Your task to perform on an android device: Go to Google Image 0: 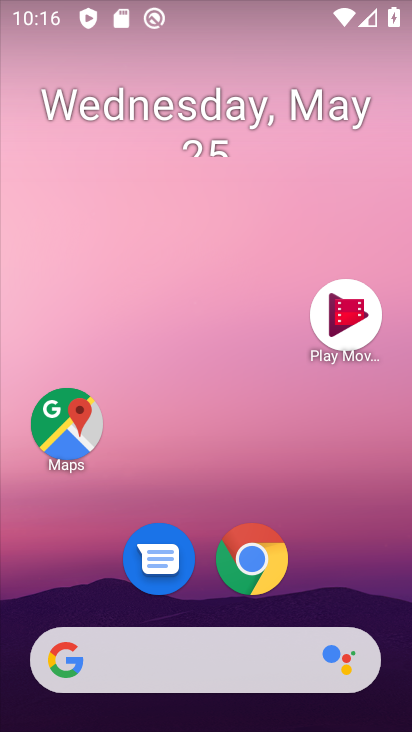
Step 0: drag from (332, 579) to (266, 2)
Your task to perform on an android device: Go to Google Image 1: 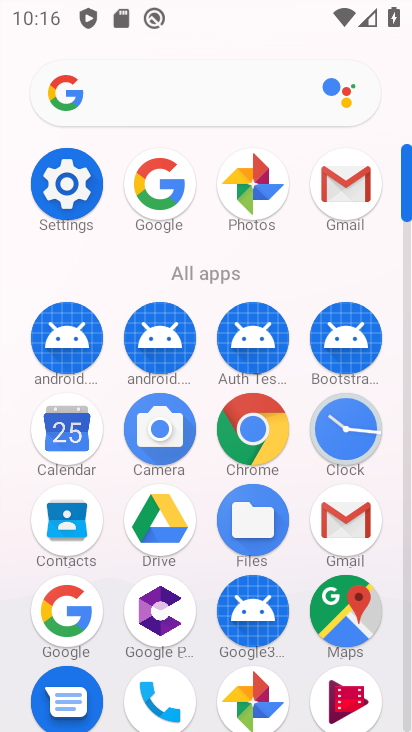
Step 1: click (159, 178)
Your task to perform on an android device: Go to Google Image 2: 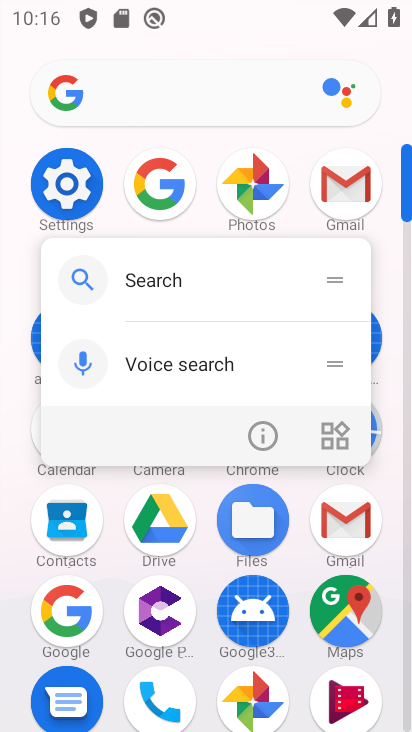
Step 2: click (166, 187)
Your task to perform on an android device: Go to Google Image 3: 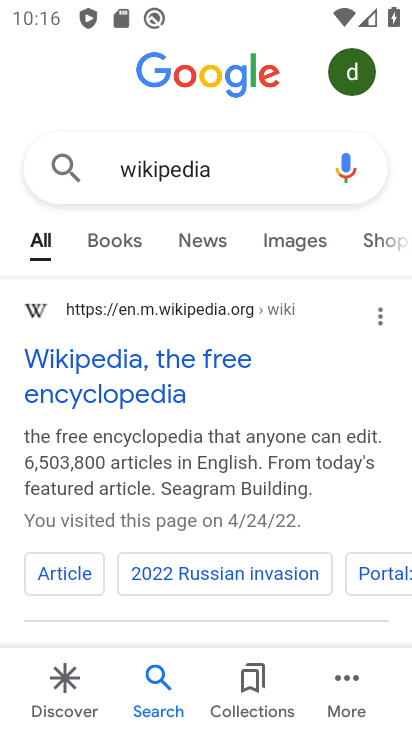
Step 3: task complete